Your task to perform on an android device: turn on bluetooth scan Image 0: 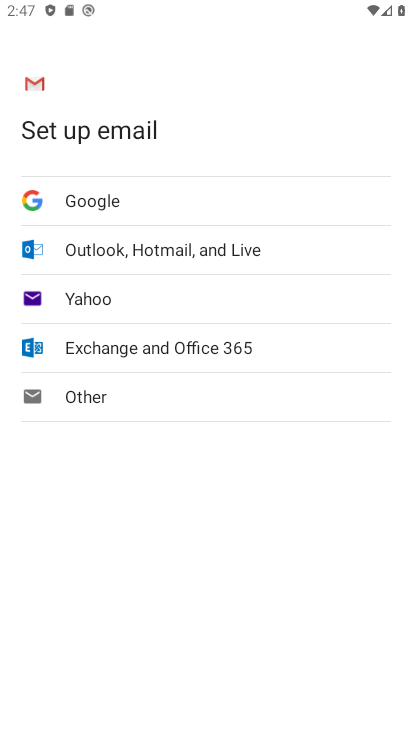
Step 0: press home button
Your task to perform on an android device: turn on bluetooth scan Image 1: 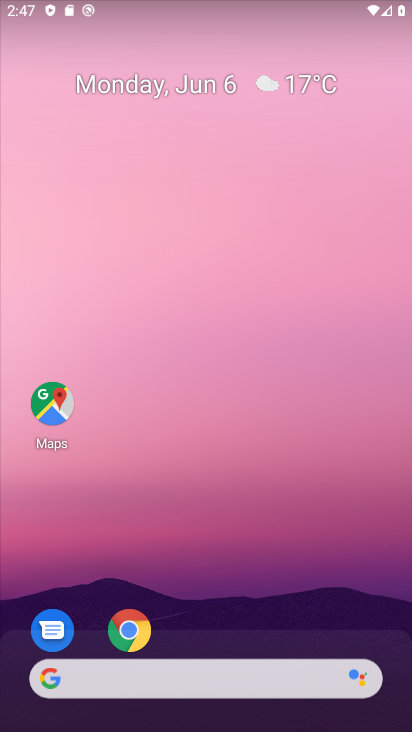
Step 1: drag from (212, 612) to (245, 279)
Your task to perform on an android device: turn on bluetooth scan Image 2: 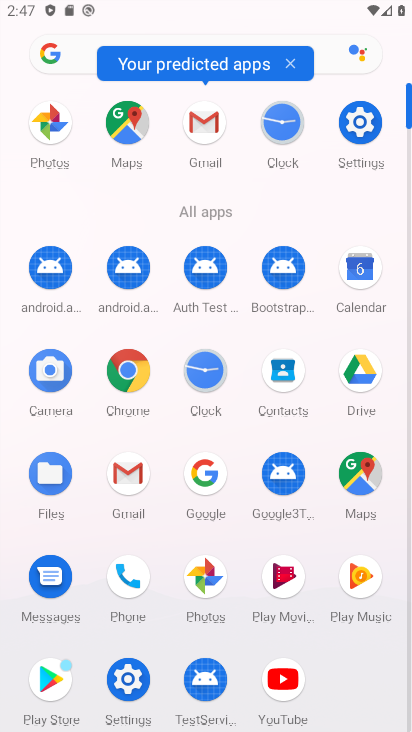
Step 2: click (360, 115)
Your task to perform on an android device: turn on bluetooth scan Image 3: 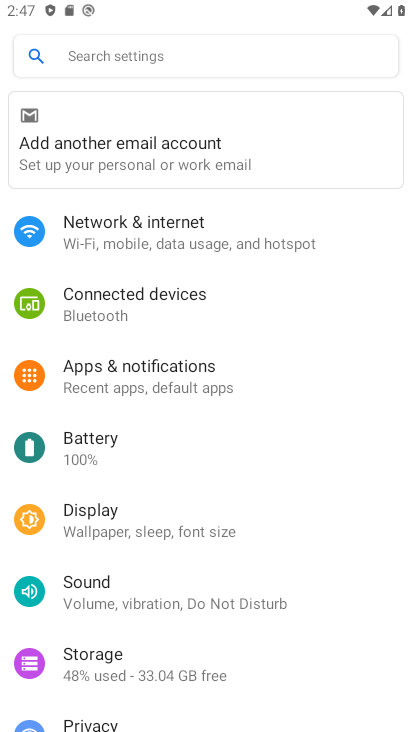
Step 3: click (132, 46)
Your task to perform on an android device: turn on bluetooth scan Image 4: 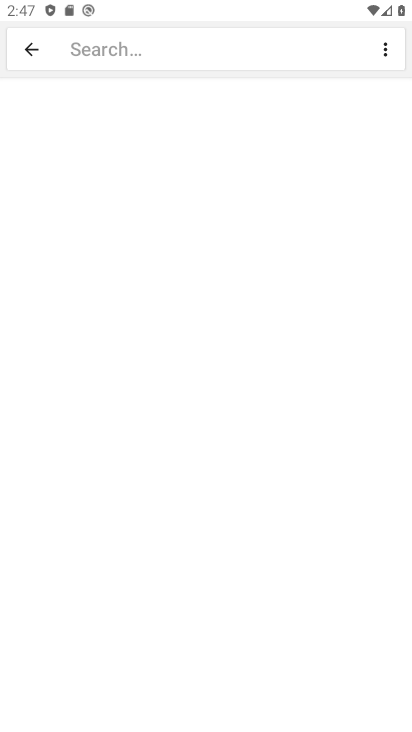
Step 4: type "bluetooth scan"
Your task to perform on an android device: turn on bluetooth scan Image 5: 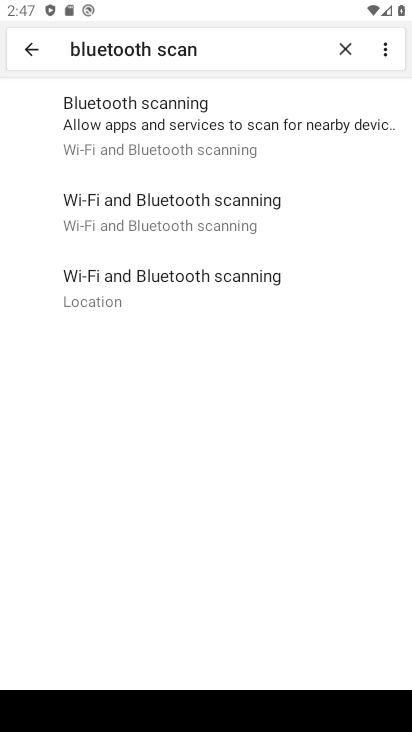
Step 5: click (180, 127)
Your task to perform on an android device: turn on bluetooth scan Image 6: 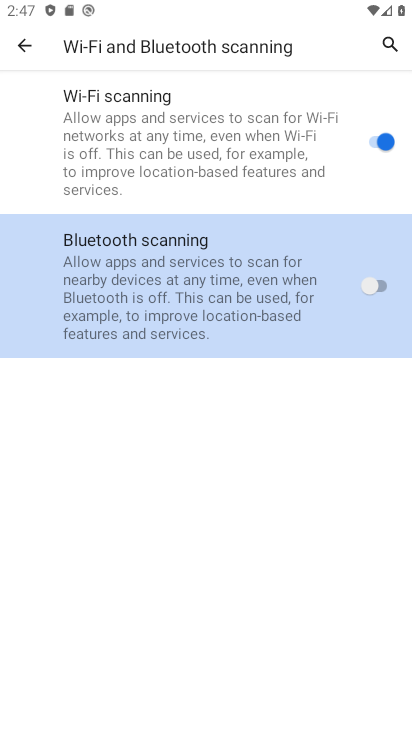
Step 6: click (382, 278)
Your task to perform on an android device: turn on bluetooth scan Image 7: 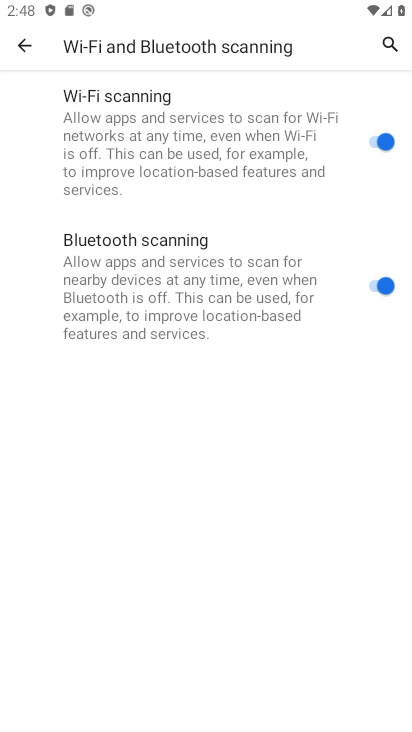
Step 7: task complete